Your task to perform on an android device: make emails show in primary in the gmail app Image 0: 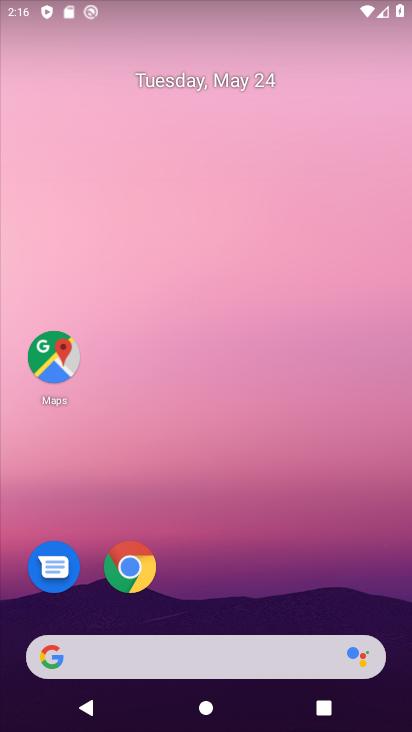
Step 0: drag from (293, 536) to (378, 117)
Your task to perform on an android device: make emails show in primary in the gmail app Image 1: 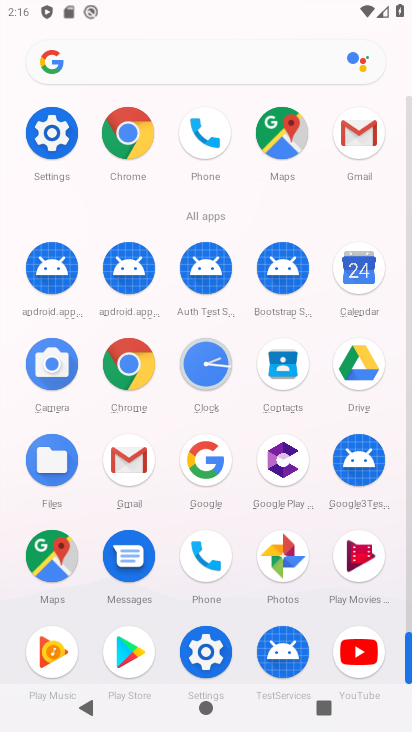
Step 1: click (368, 135)
Your task to perform on an android device: make emails show in primary in the gmail app Image 2: 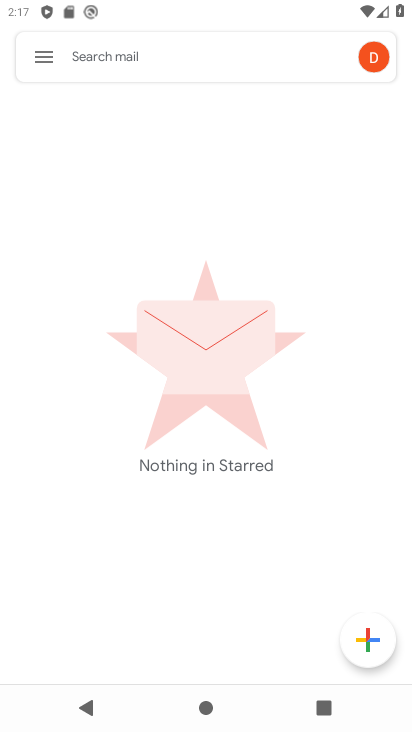
Step 2: click (44, 52)
Your task to perform on an android device: make emails show in primary in the gmail app Image 3: 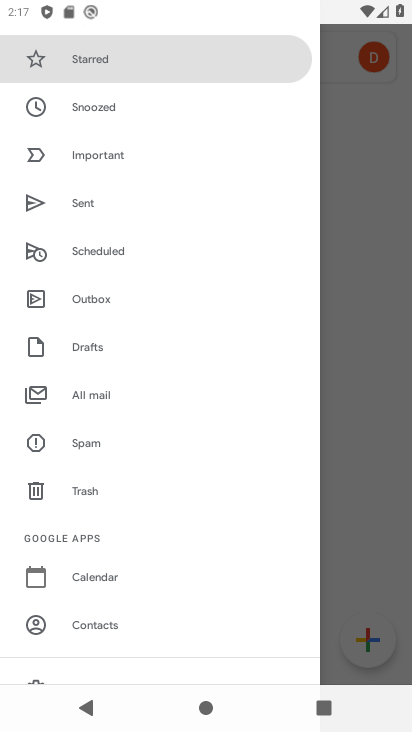
Step 3: drag from (105, 612) to (202, 215)
Your task to perform on an android device: make emails show in primary in the gmail app Image 4: 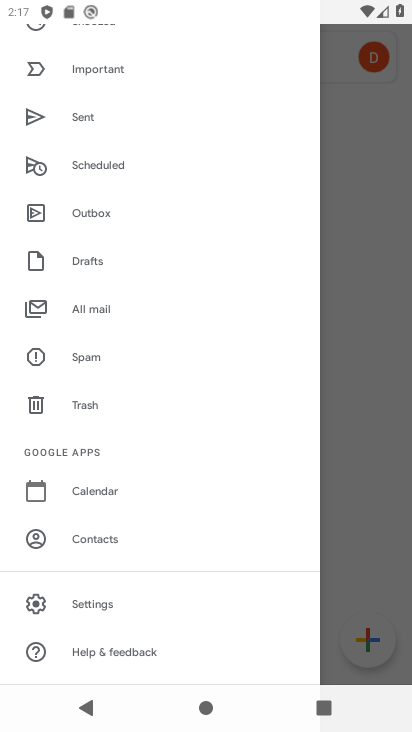
Step 4: click (118, 609)
Your task to perform on an android device: make emails show in primary in the gmail app Image 5: 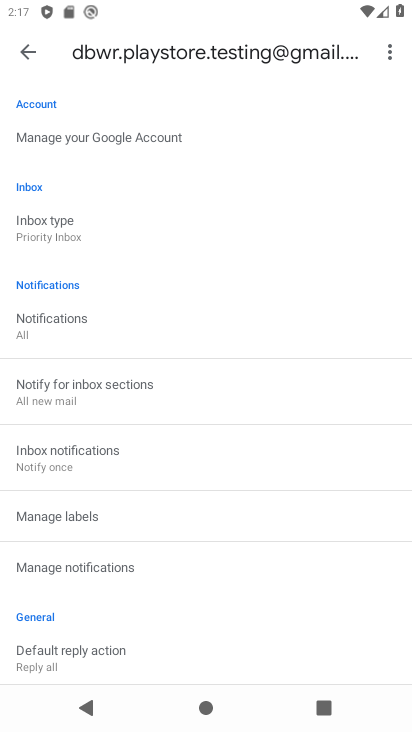
Step 5: task complete